Your task to perform on an android device: What's the weather going to be this weekend? Image 0: 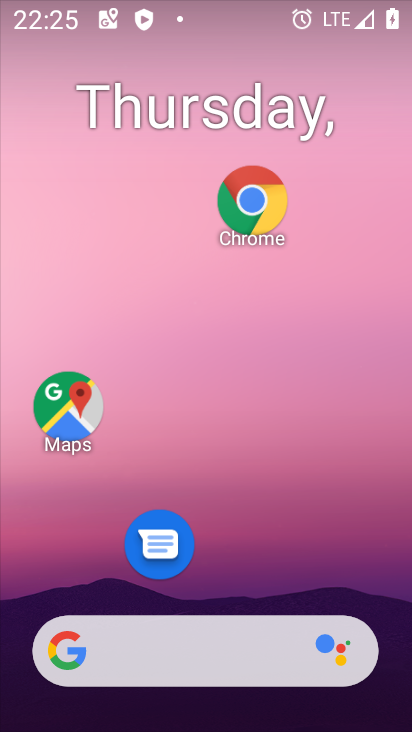
Step 0: click (139, 661)
Your task to perform on an android device: What's the weather going to be this weekend? Image 1: 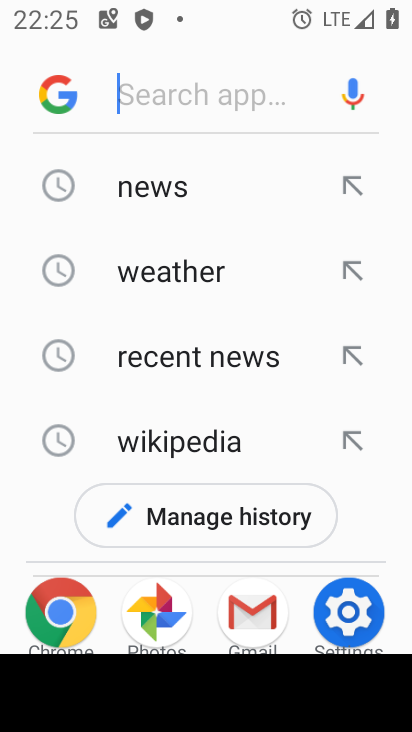
Step 1: click (63, 123)
Your task to perform on an android device: What's the weather going to be this weekend? Image 2: 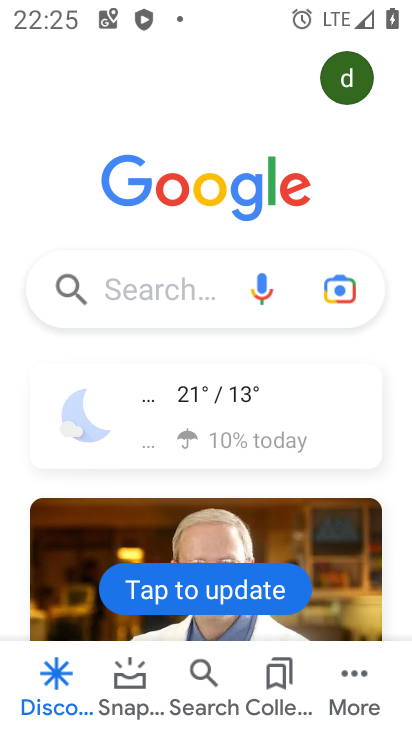
Step 2: click (110, 417)
Your task to perform on an android device: What's the weather going to be this weekend? Image 3: 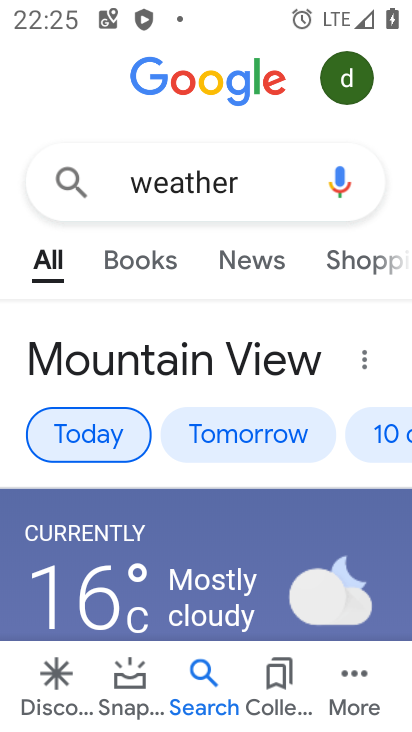
Step 3: task complete